Your task to perform on an android device: toggle data saver in the chrome app Image 0: 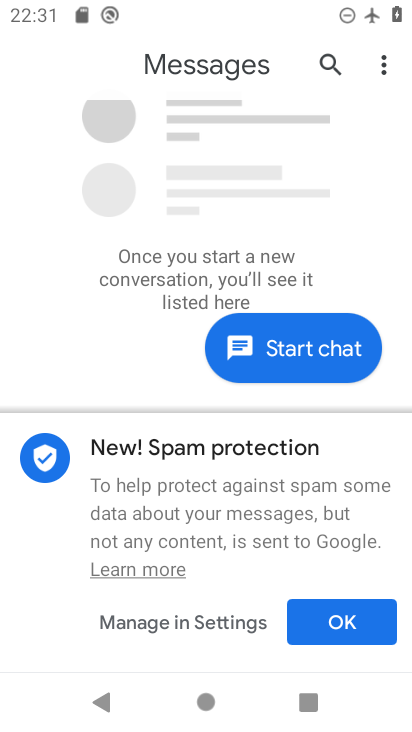
Step 0: press home button
Your task to perform on an android device: toggle data saver in the chrome app Image 1: 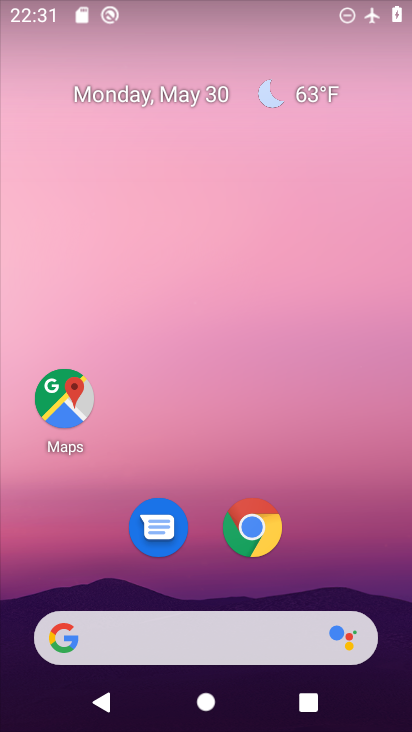
Step 1: click (240, 524)
Your task to perform on an android device: toggle data saver in the chrome app Image 2: 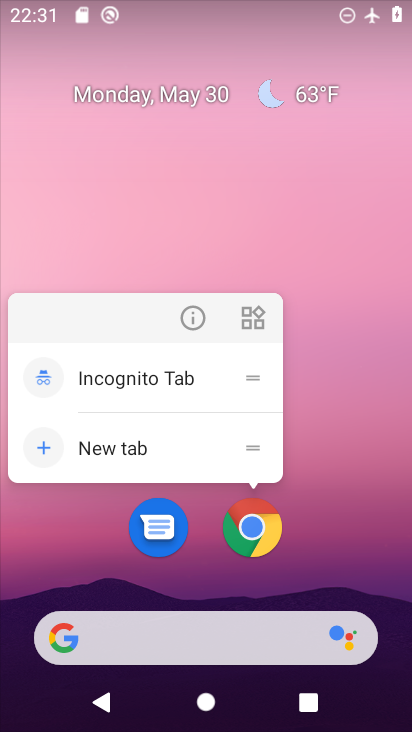
Step 2: click (259, 513)
Your task to perform on an android device: toggle data saver in the chrome app Image 3: 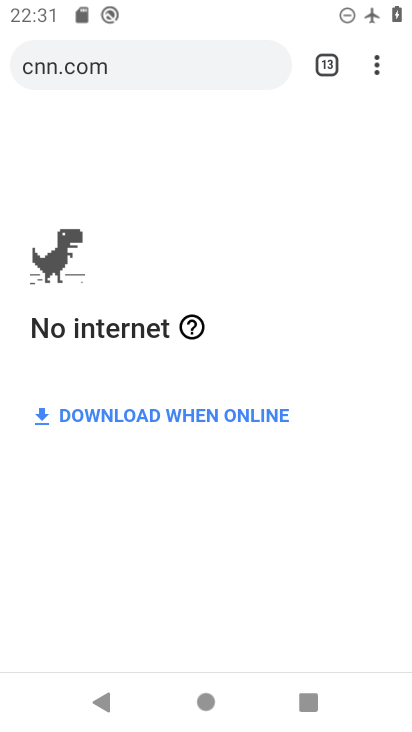
Step 3: click (380, 61)
Your task to perform on an android device: toggle data saver in the chrome app Image 4: 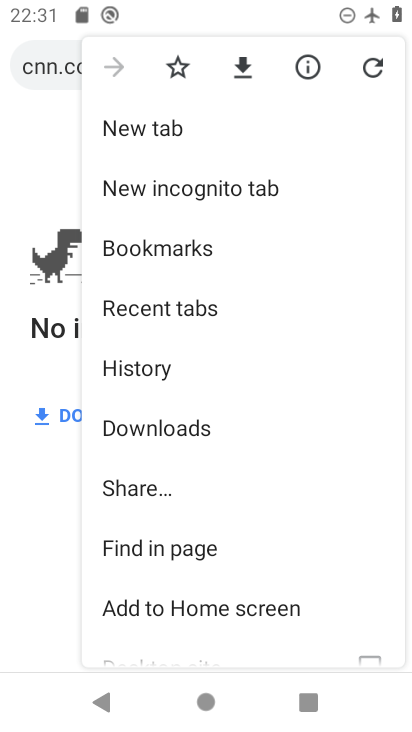
Step 4: drag from (201, 589) to (247, 315)
Your task to perform on an android device: toggle data saver in the chrome app Image 5: 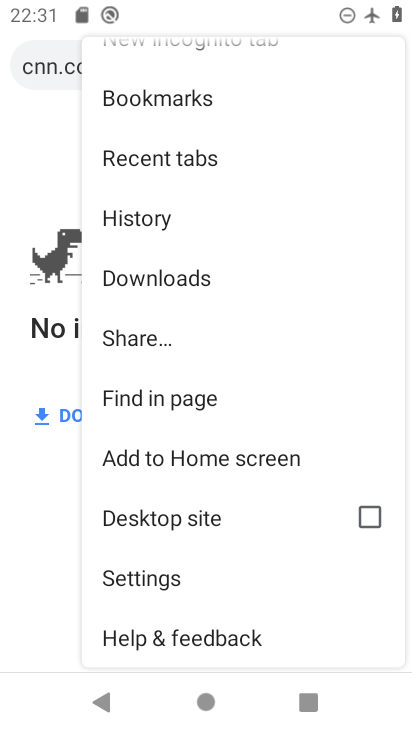
Step 5: click (183, 584)
Your task to perform on an android device: toggle data saver in the chrome app Image 6: 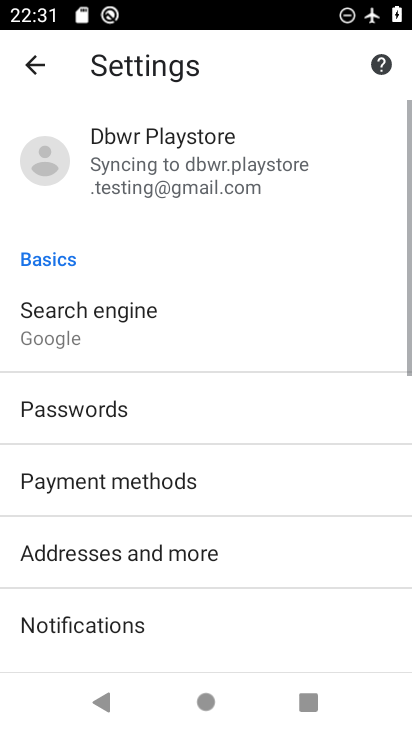
Step 6: drag from (183, 579) to (272, 262)
Your task to perform on an android device: toggle data saver in the chrome app Image 7: 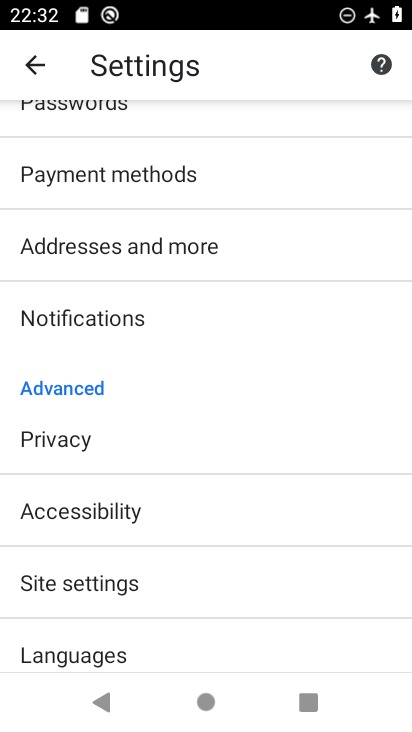
Step 7: drag from (191, 584) to (235, 377)
Your task to perform on an android device: toggle data saver in the chrome app Image 8: 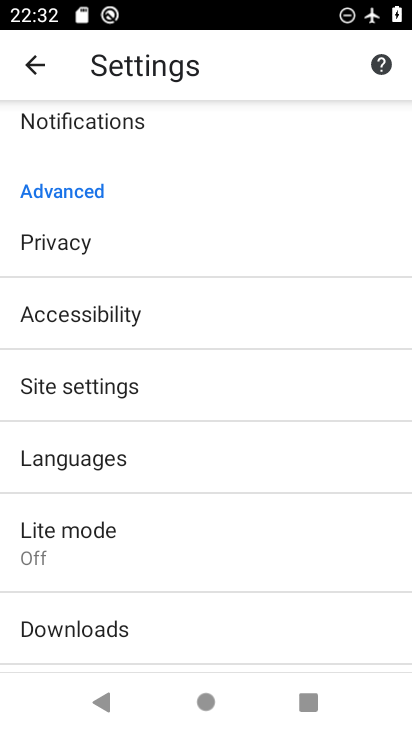
Step 8: click (101, 545)
Your task to perform on an android device: toggle data saver in the chrome app Image 9: 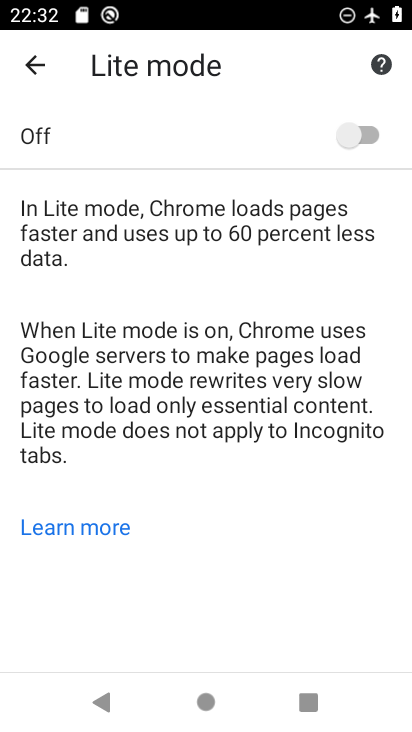
Step 9: click (361, 126)
Your task to perform on an android device: toggle data saver in the chrome app Image 10: 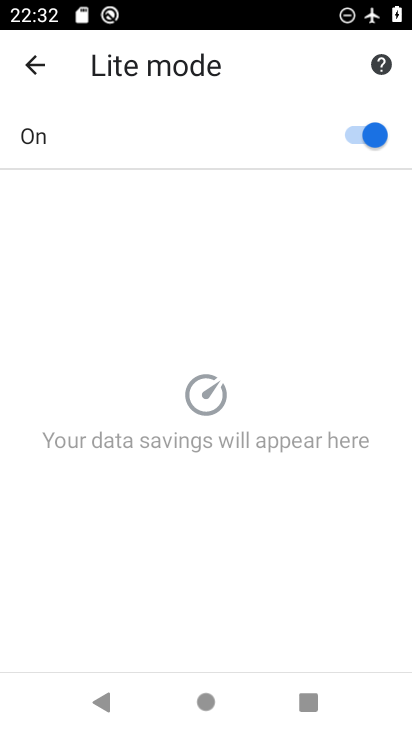
Step 10: task complete